Your task to perform on an android device: open app "Expedia: Hotels, Flights & Car" Image 0: 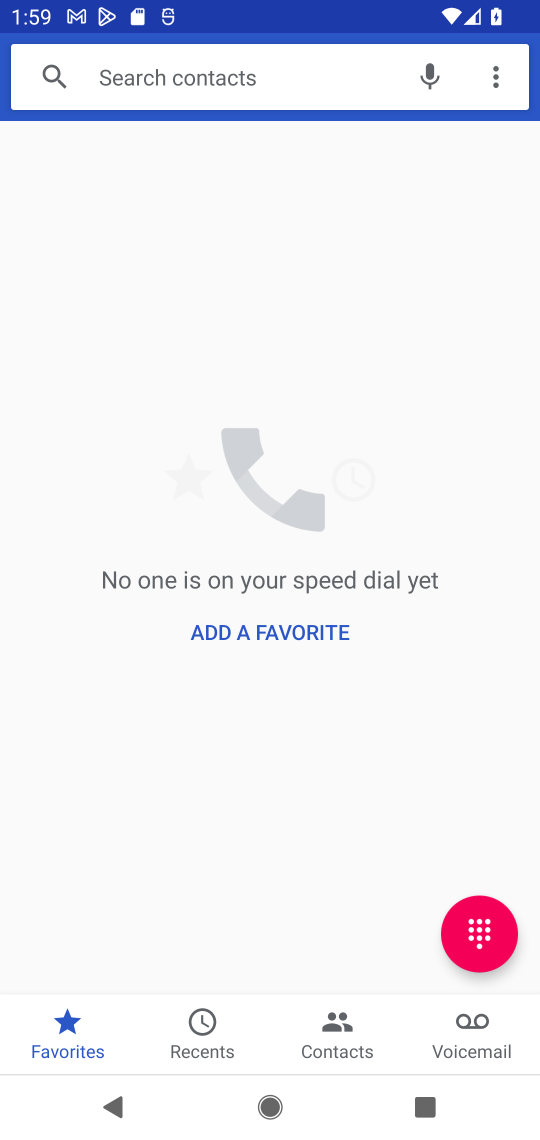
Step 0: press home button
Your task to perform on an android device: open app "Expedia: Hotels, Flights & Car" Image 1: 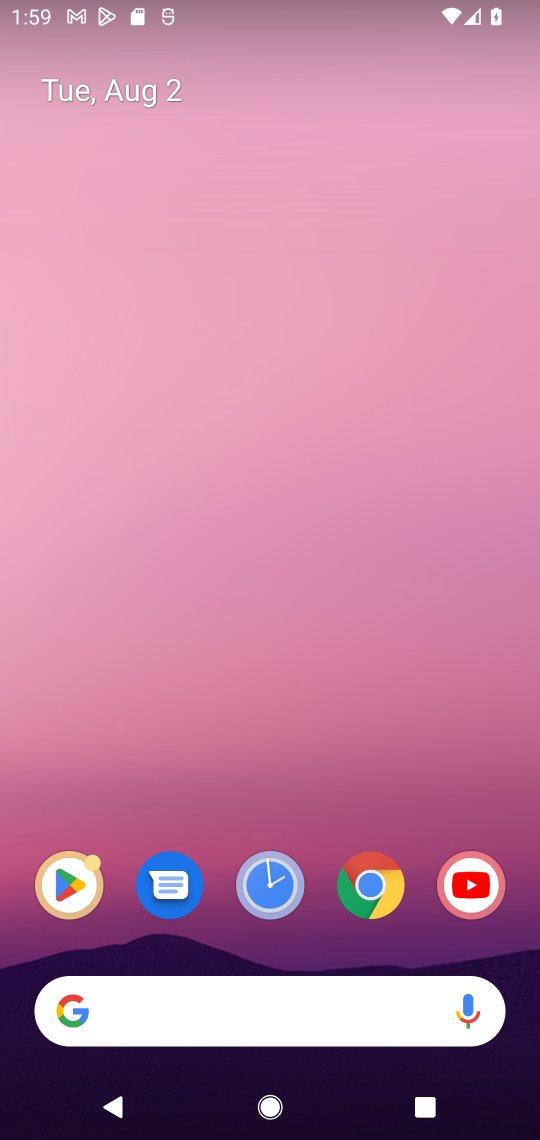
Step 1: click (88, 885)
Your task to perform on an android device: open app "Expedia: Hotels, Flights & Car" Image 2: 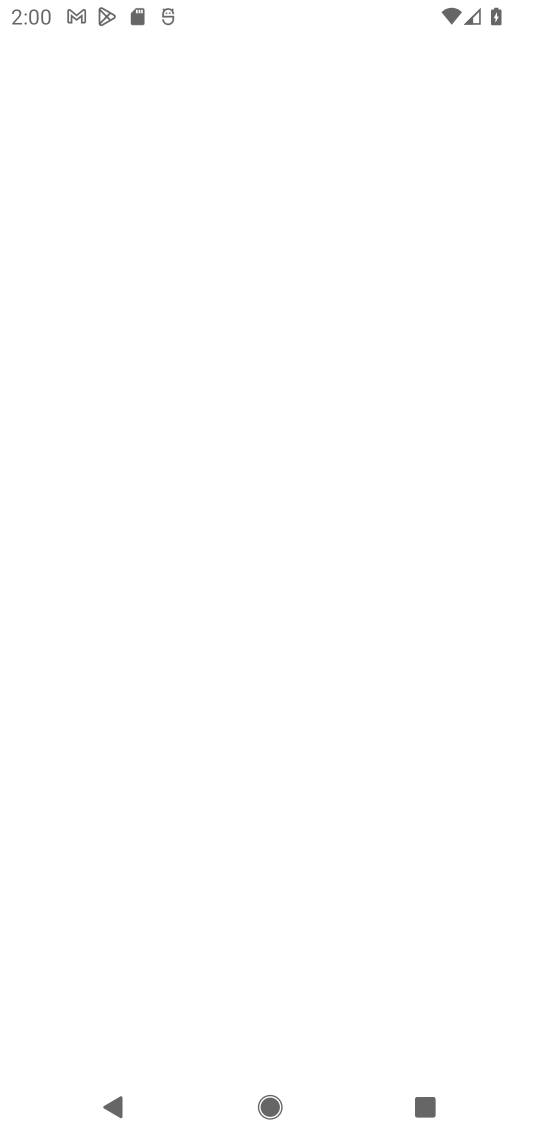
Step 2: task complete